Your task to perform on an android device: Play the last video I watched on Youtube Image 0: 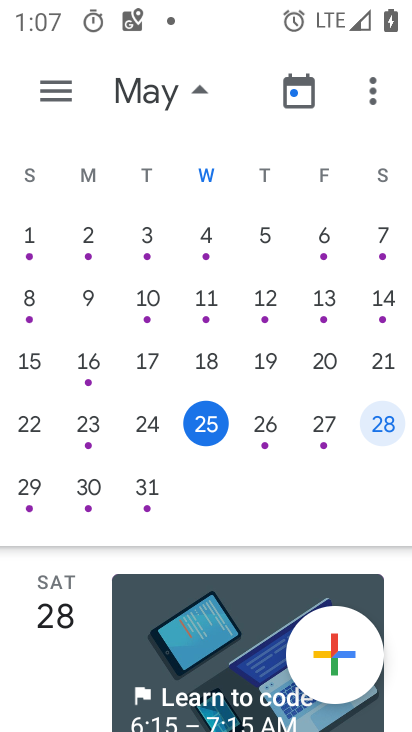
Step 0: press home button
Your task to perform on an android device: Play the last video I watched on Youtube Image 1: 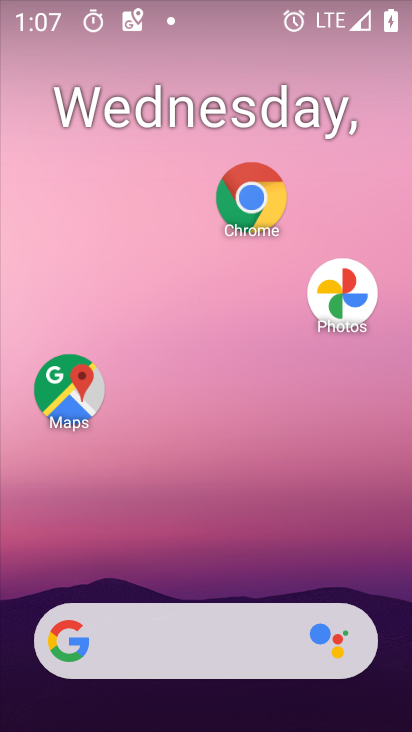
Step 1: drag from (214, 683) to (209, 192)
Your task to perform on an android device: Play the last video I watched on Youtube Image 2: 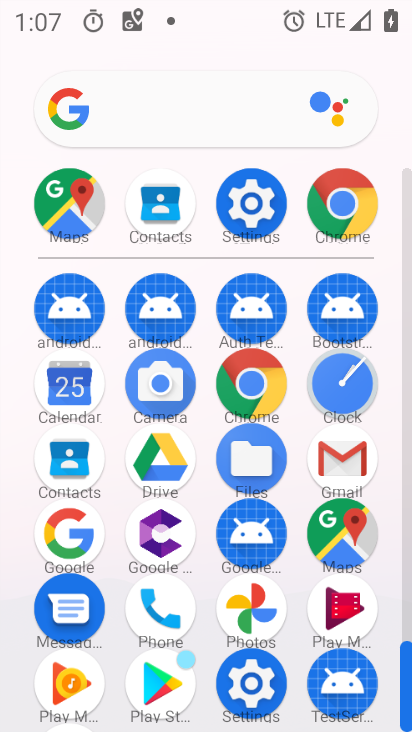
Step 2: drag from (175, 515) to (173, 285)
Your task to perform on an android device: Play the last video I watched on Youtube Image 3: 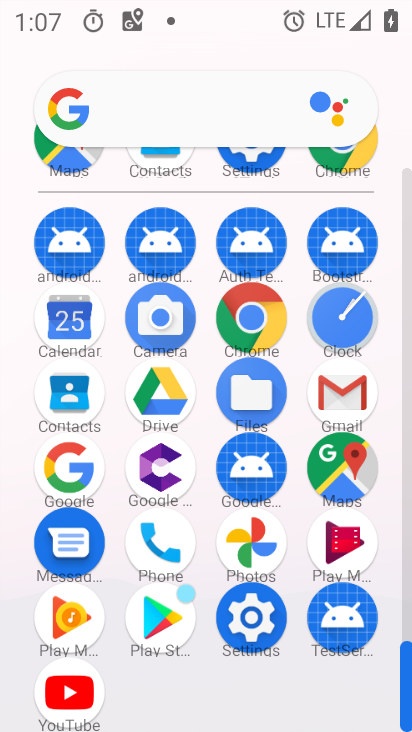
Step 3: click (86, 697)
Your task to perform on an android device: Play the last video I watched on Youtube Image 4: 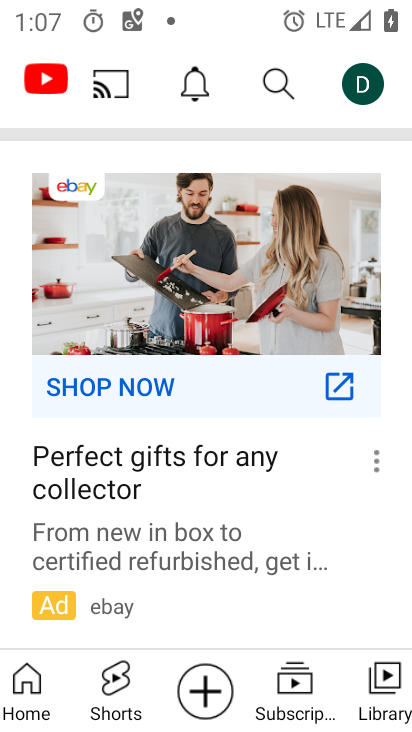
Step 4: click (390, 702)
Your task to perform on an android device: Play the last video I watched on Youtube Image 5: 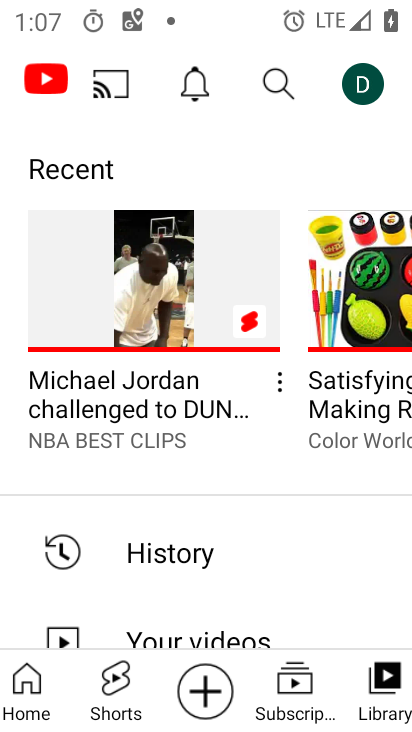
Step 5: click (122, 273)
Your task to perform on an android device: Play the last video I watched on Youtube Image 6: 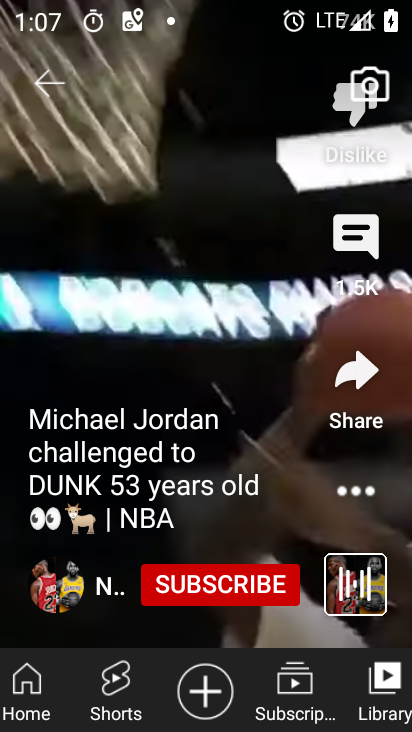
Step 6: task complete